Your task to perform on an android device: Search for sushi restaurants on Maps Image 0: 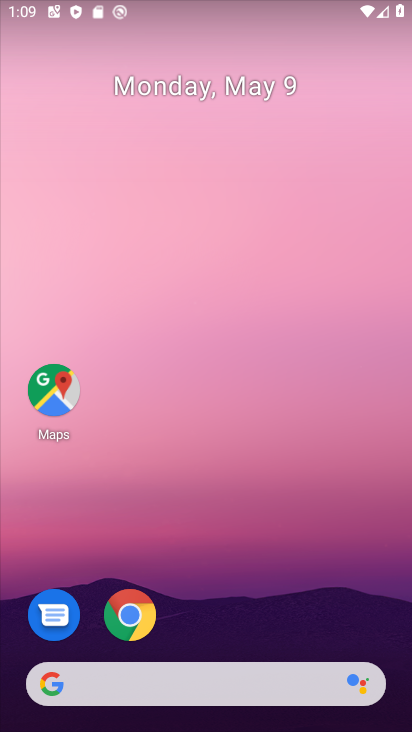
Step 0: click (54, 393)
Your task to perform on an android device: Search for sushi restaurants on Maps Image 1: 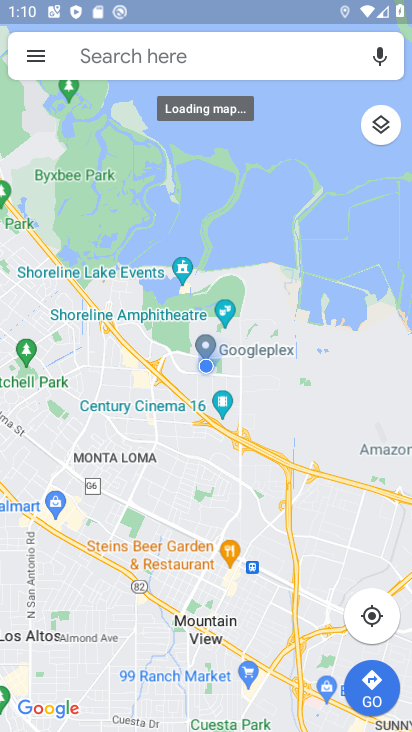
Step 1: click (148, 55)
Your task to perform on an android device: Search for sushi restaurants on Maps Image 2: 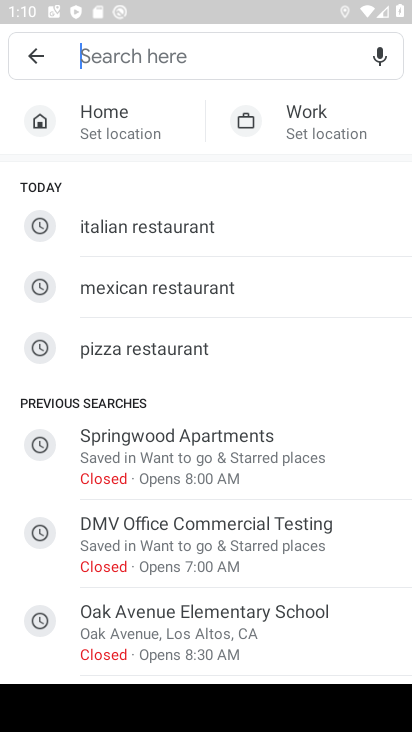
Step 2: type "sushi restaurants"
Your task to perform on an android device: Search for sushi restaurants on Maps Image 3: 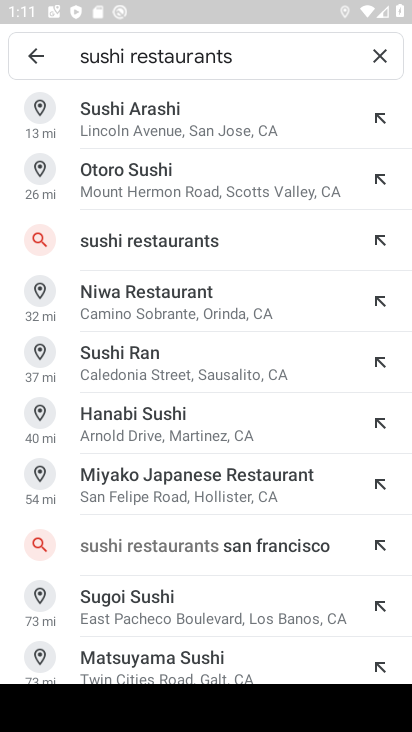
Step 3: click (161, 243)
Your task to perform on an android device: Search for sushi restaurants on Maps Image 4: 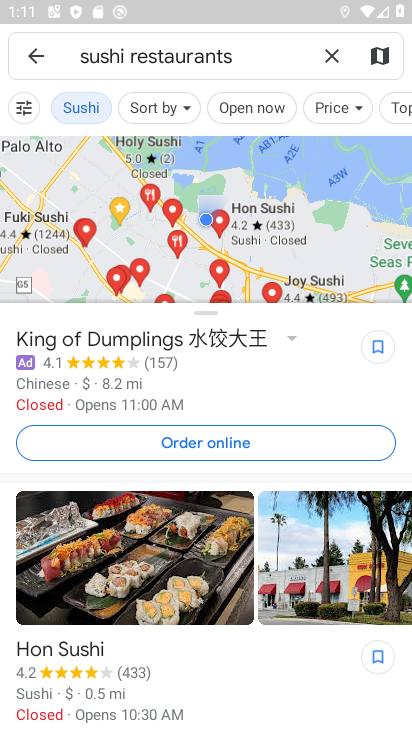
Step 4: task complete